Your task to perform on an android device: open app "Indeed Job Search" Image 0: 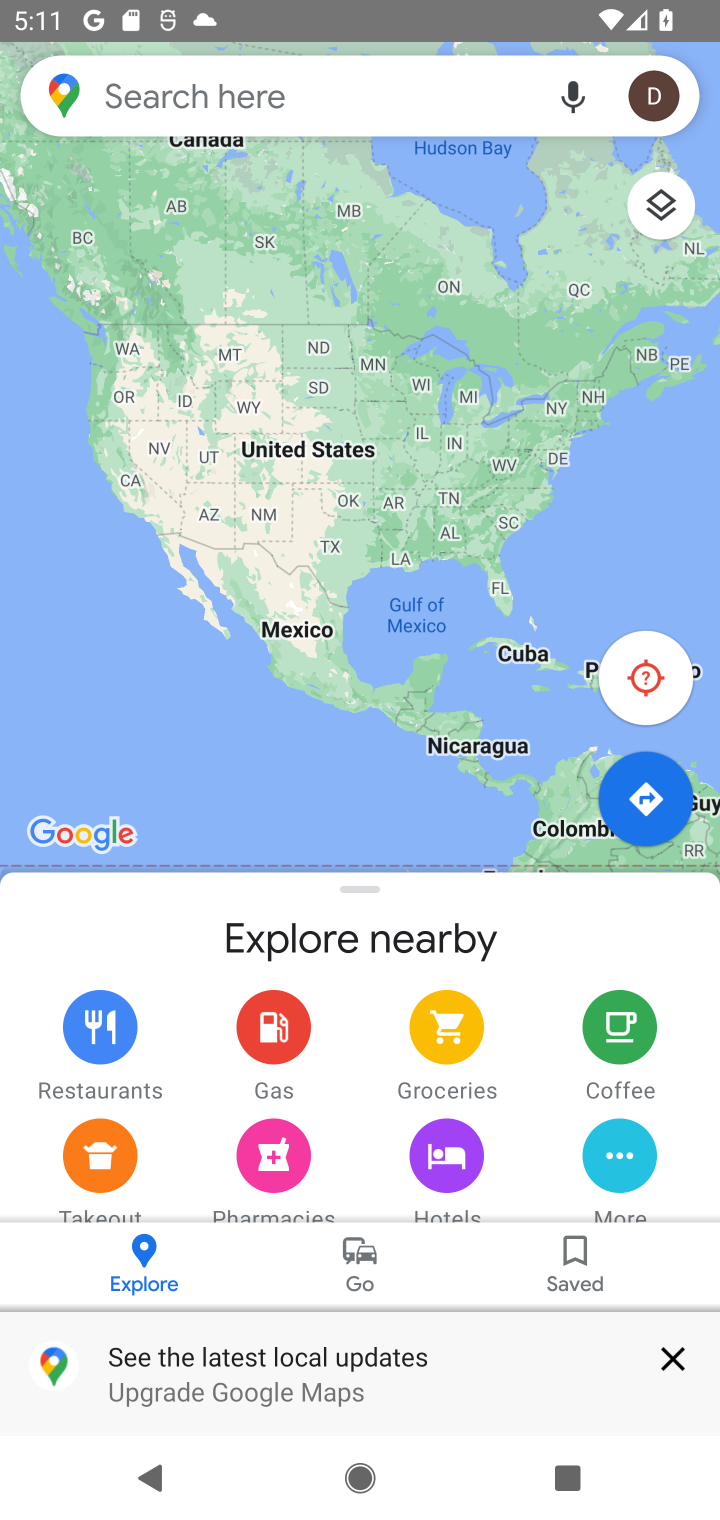
Step 0: press home button
Your task to perform on an android device: open app "Indeed Job Search" Image 1: 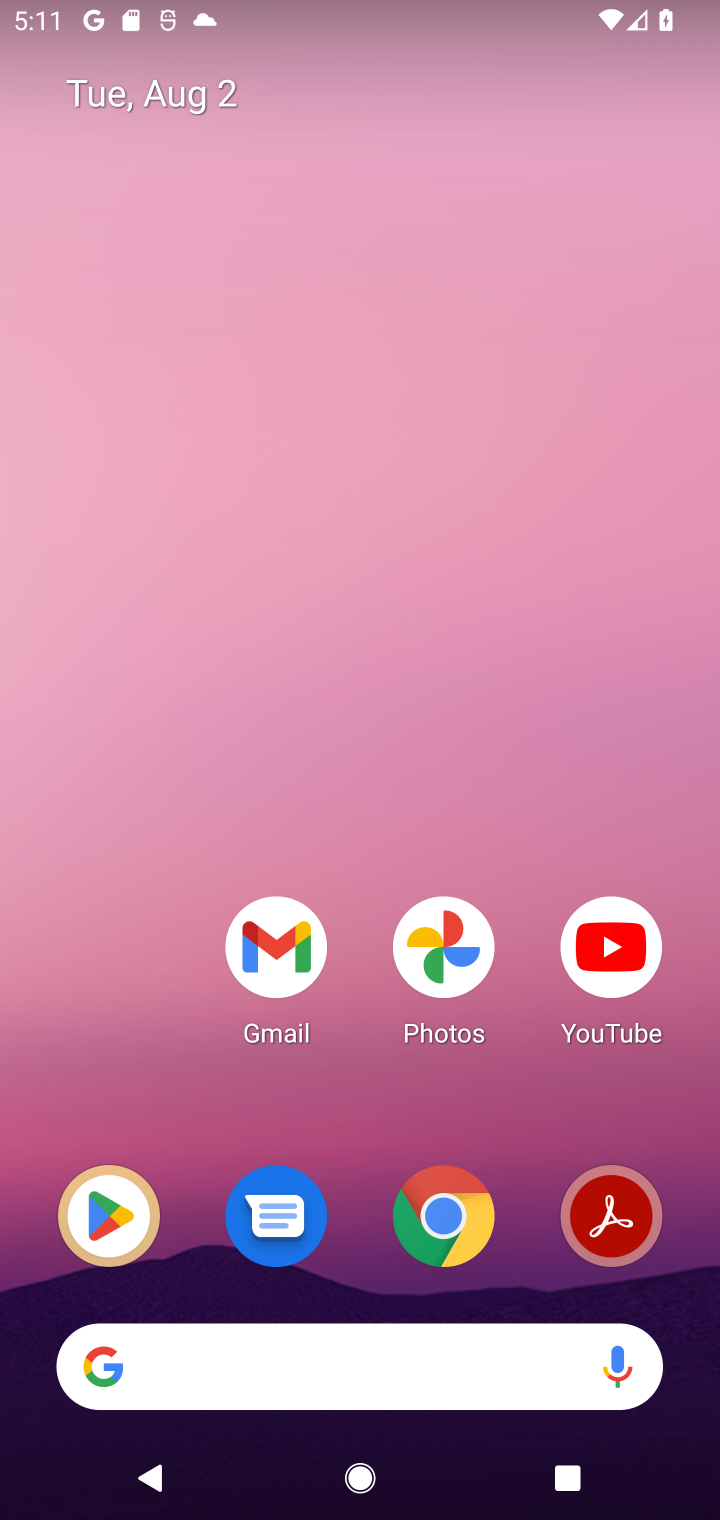
Step 1: click (117, 1249)
Your task to perform on an android device: open app "Indeed Job Search" Image 2: 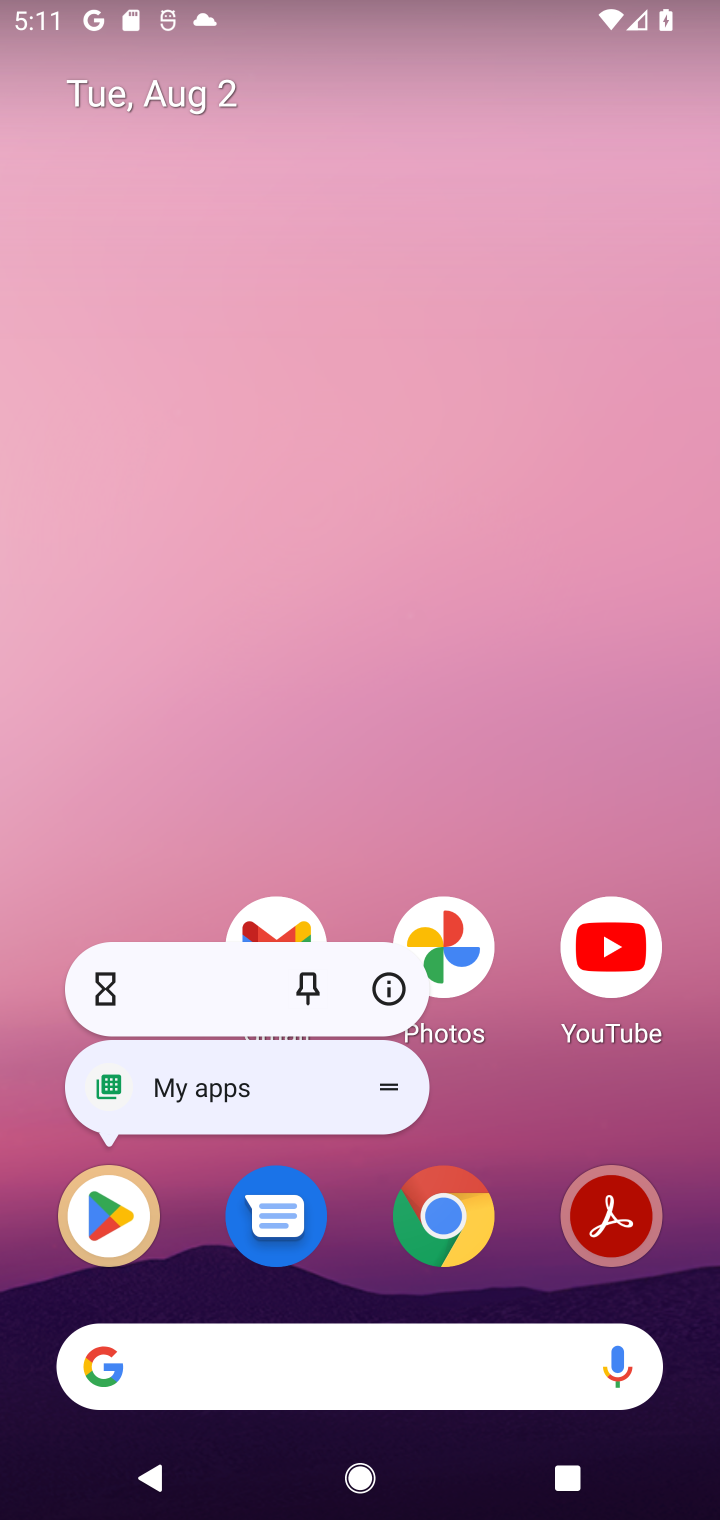
Step 2: click (390, 991)
Your task to perform on an android device: open app "Indeed Job Search" Image 3: 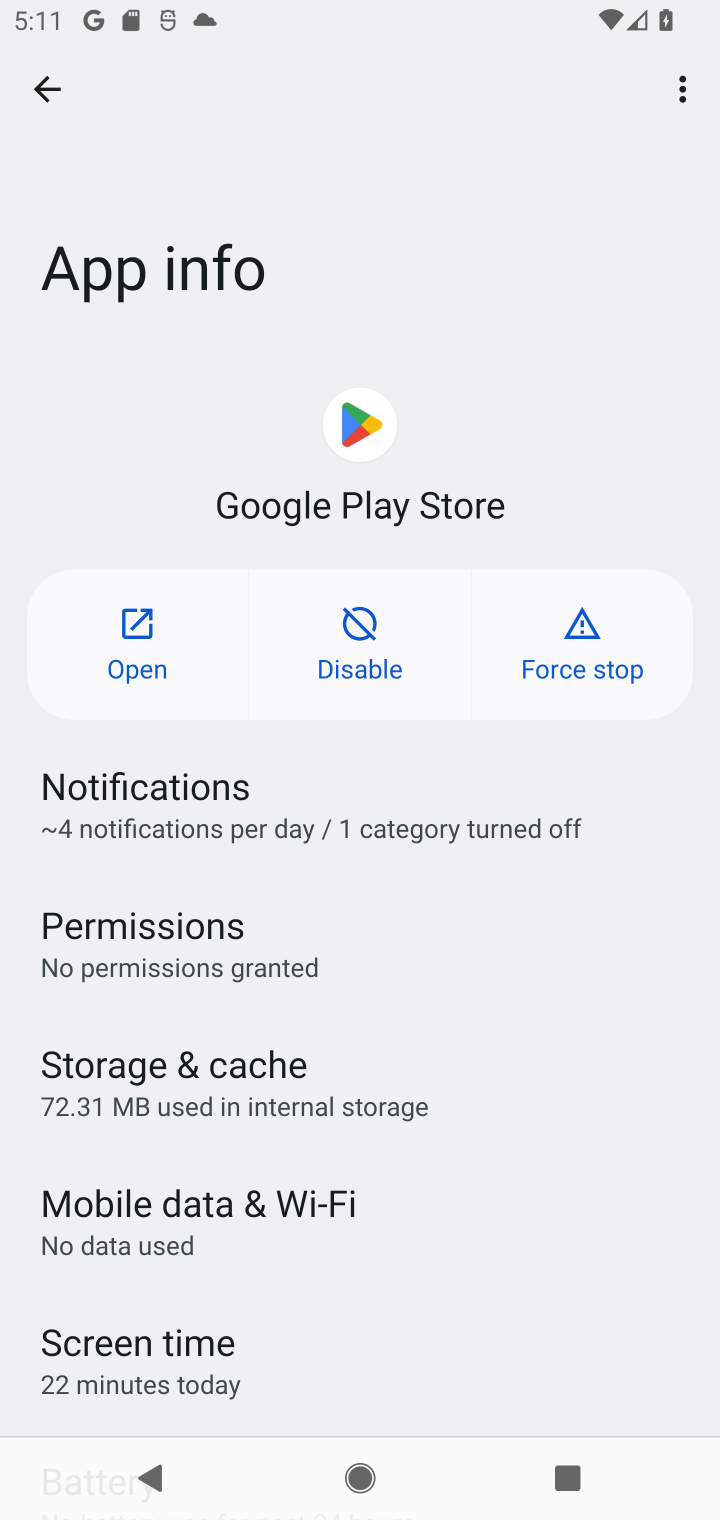
Step 3: click (58, 96)
Your task to perform on an android device: open app "Indeed Job Search" Image 4: 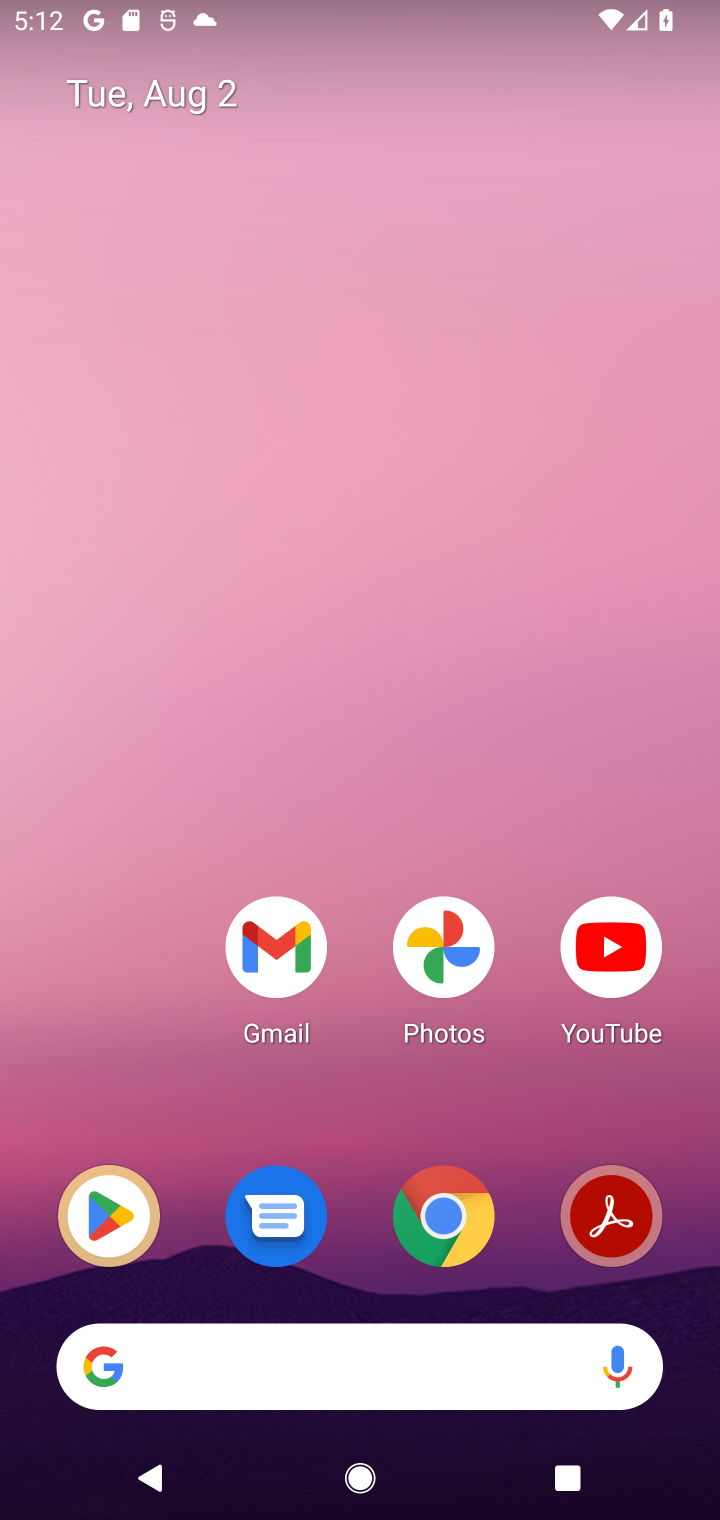
Step 4: click (133, 1221)
Your task to perform on an android device: open app "Indeed Job Search" Image 5: 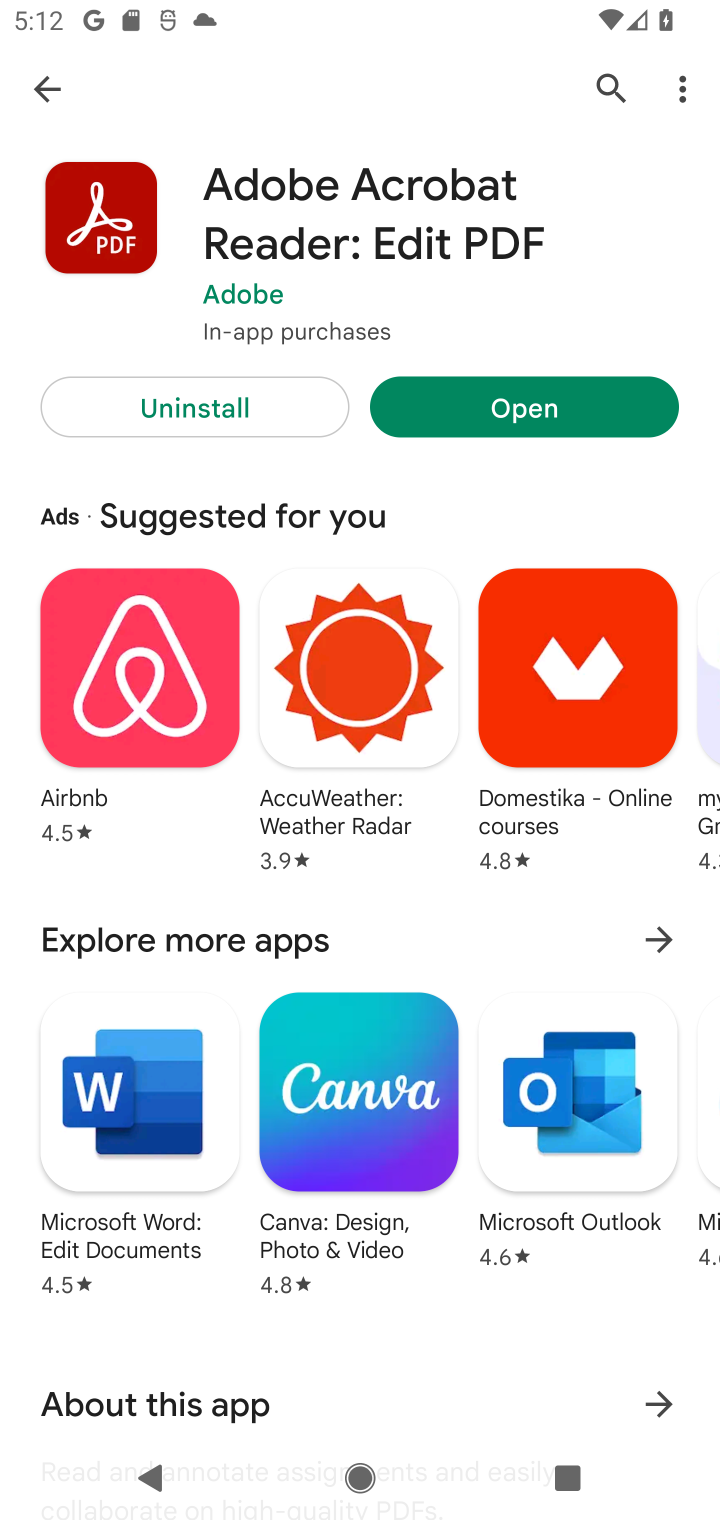
Step 5: click (607, 77)
Your task to perform on an android device: open app "Indeed Job Search" Image 6: 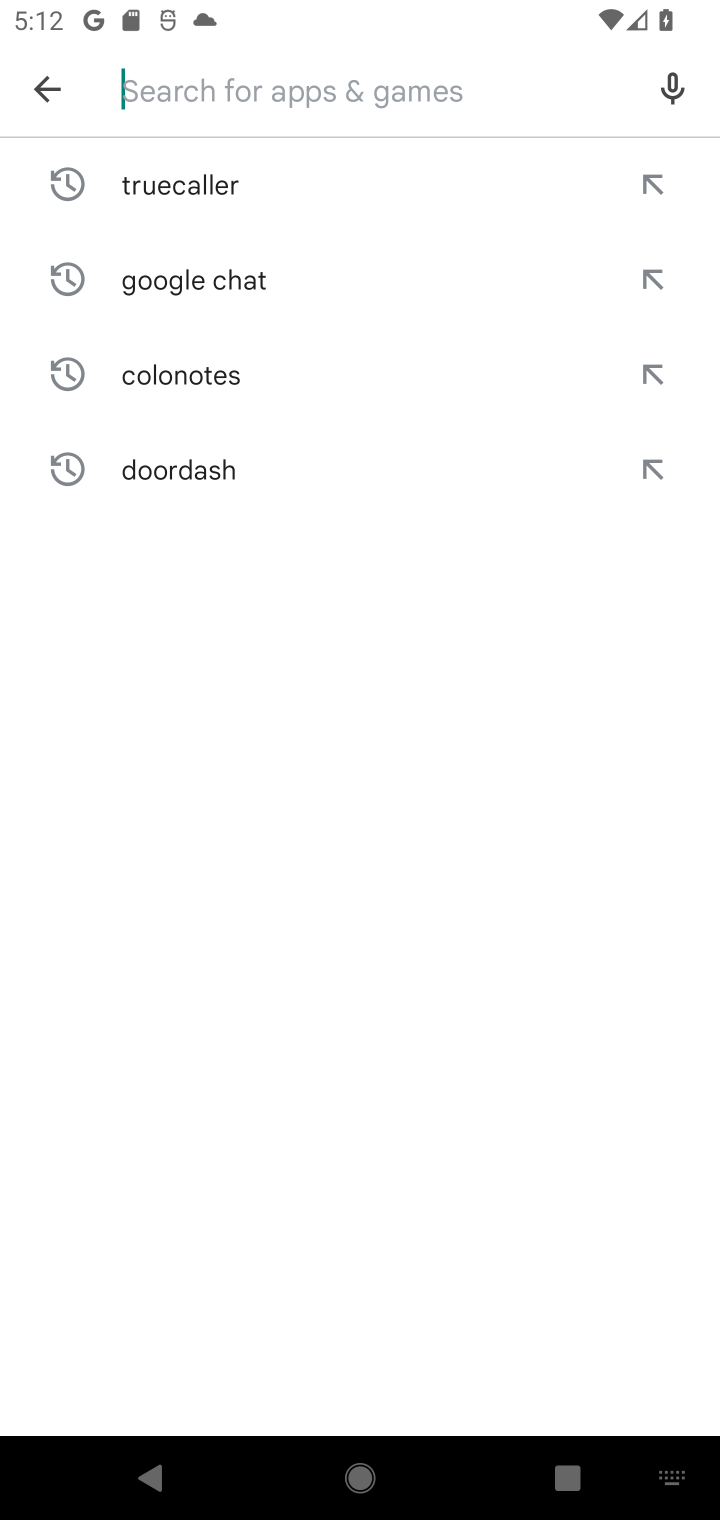
Step 6: type "indeed"
Your task to perform on an android device: open app "Indeed Job Search" Image 7: 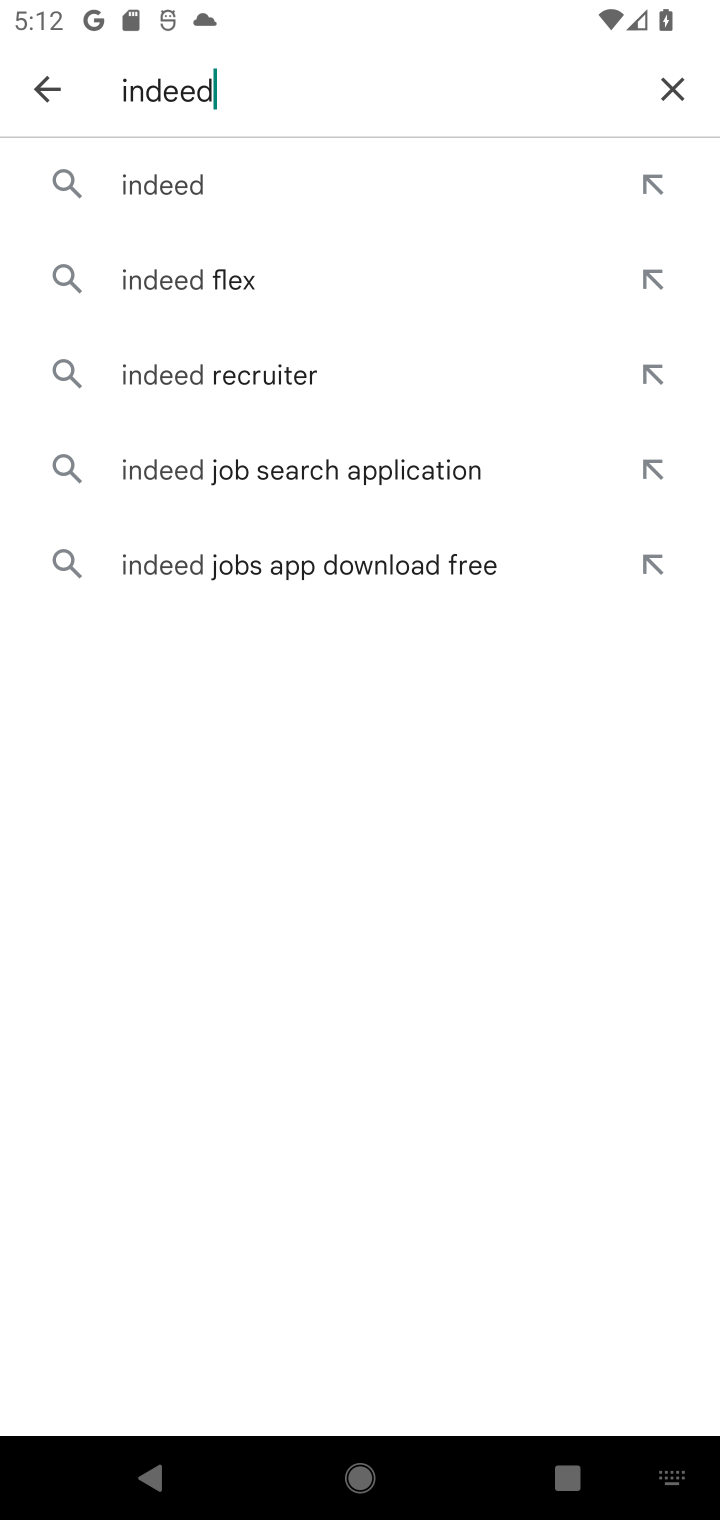
Step 7: click (343, 211)
Your task to perform on an android device: open app "Indeed Job Search" Image 8: 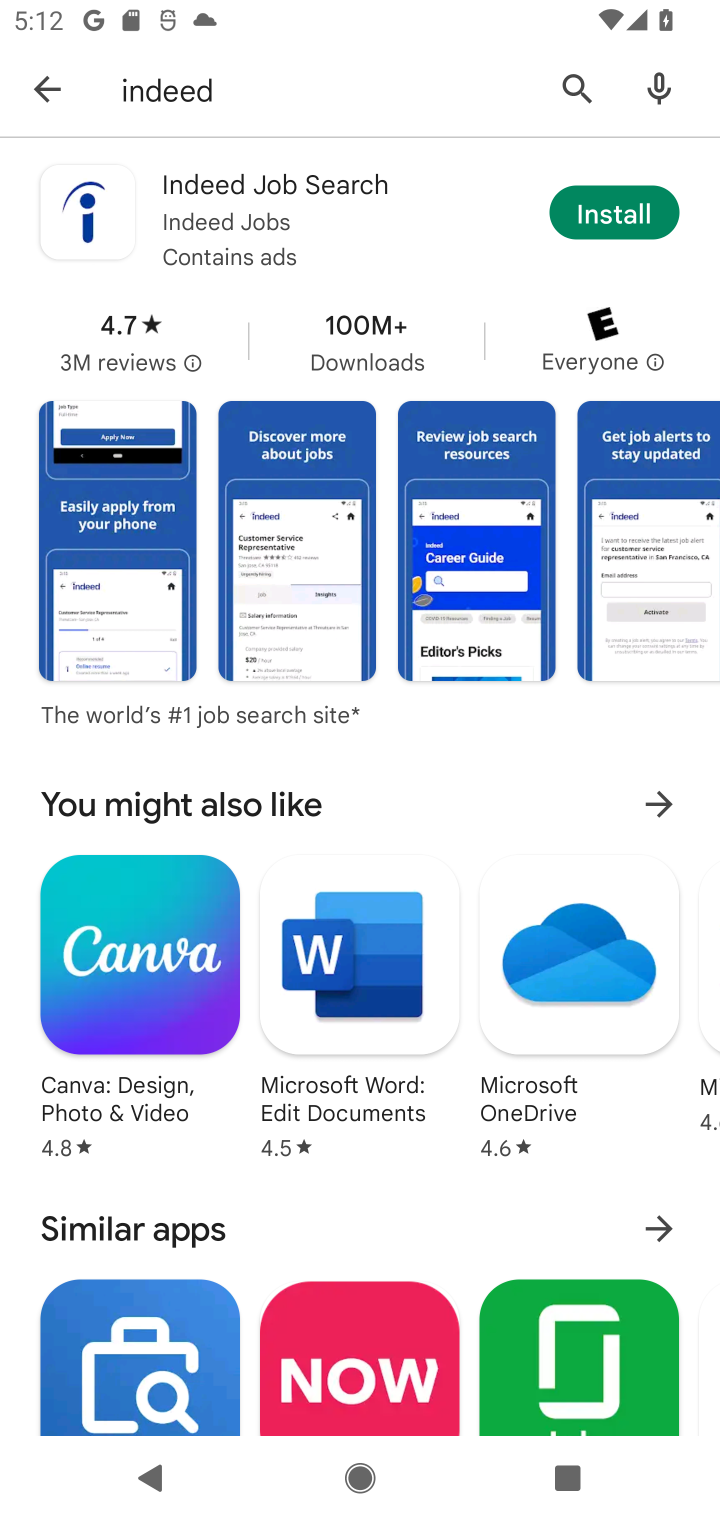
Step 8: click (593, 231)
Your task to perform on an android device: open app "Indeed Job Search" Image 9: 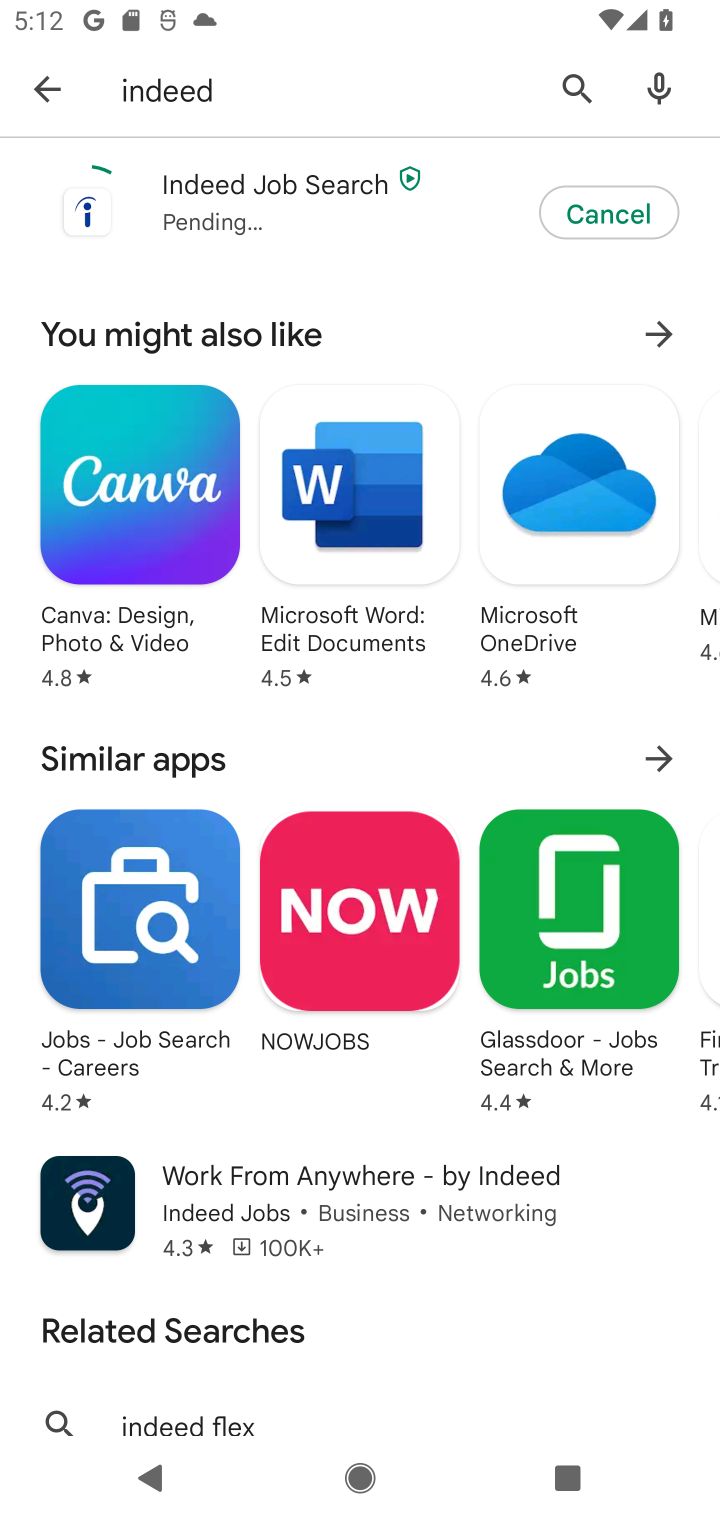
Step 9: task complete